Your task to perform on an android device: turn notification dots on Image 0: 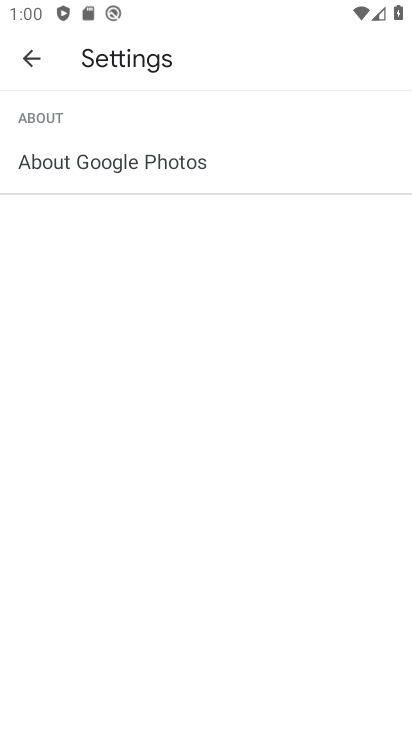
Step 0: press home button
Your task to perform on an android device: turn notification dots on Image 1: 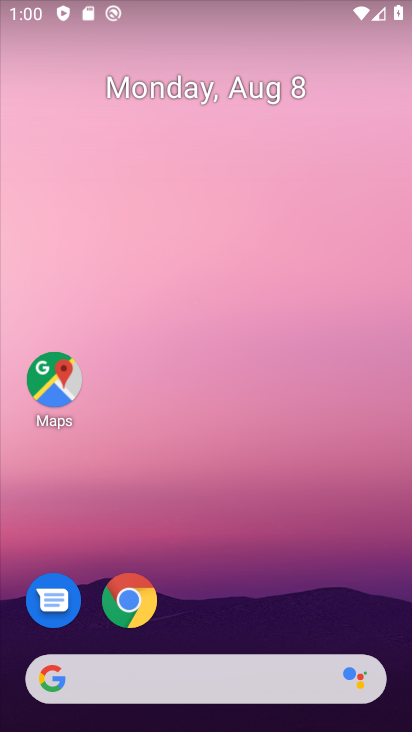
Step 1: click (275, 637)
Your task to perform on an android device: turn notification dots on Image 2: 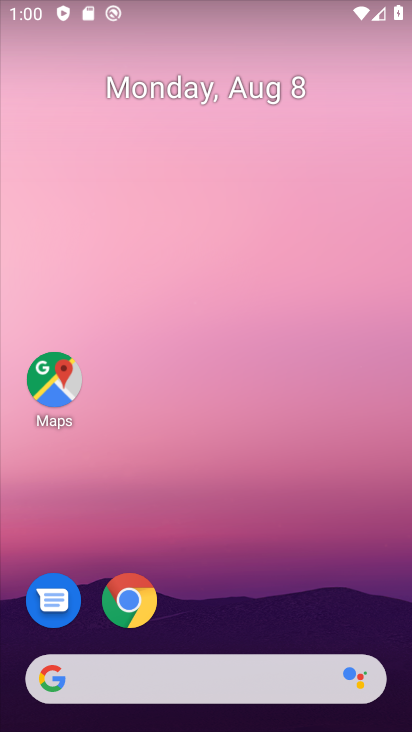
Step 2: drag from (319, 230) to (326, 73)
Your task to perform on an android device: turn notification dots on Image 3: 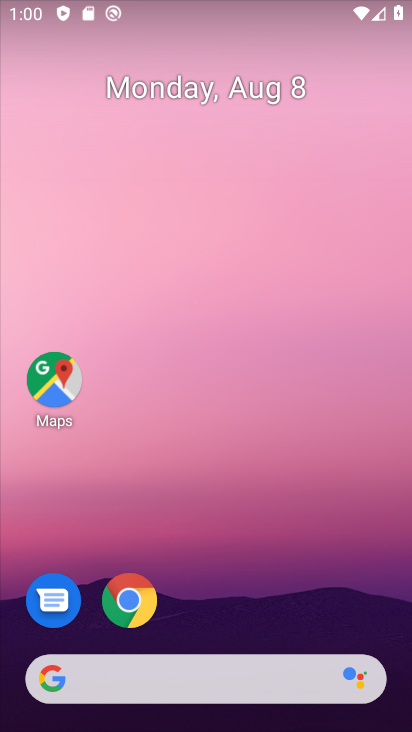
Step 3: drag from (264, 602) to (262, 26)
Your task to perform on an android device: turn notification dots on Image 4: 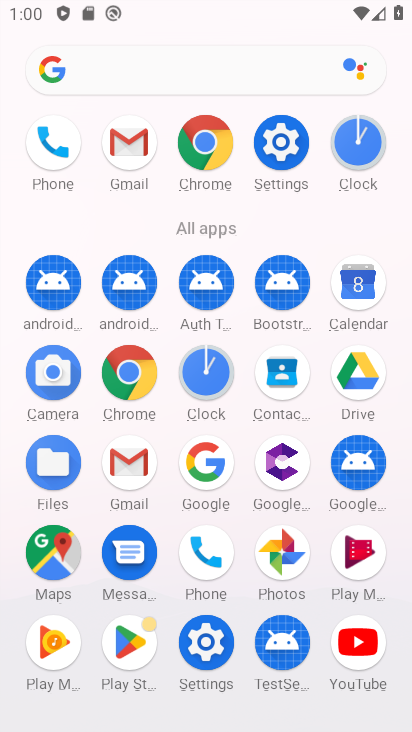
Step 4: click (284, 151)
Your task to perform on an android device: turn notification dots on Image 5: 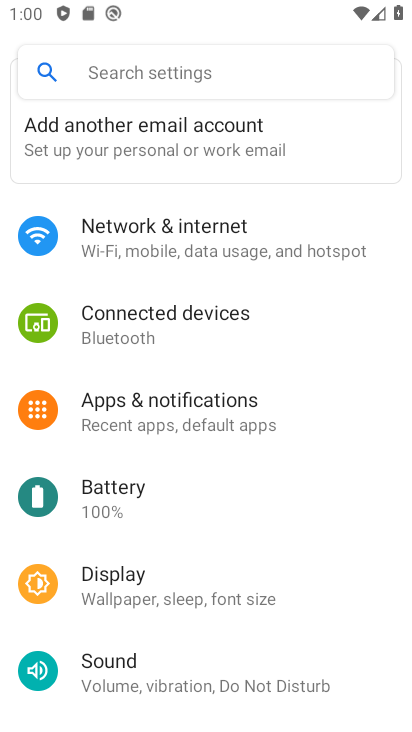
Step 5: drag from (315, 645) to (291, 540)
Your task to perform on an android device: turn notification dots on Image 6: 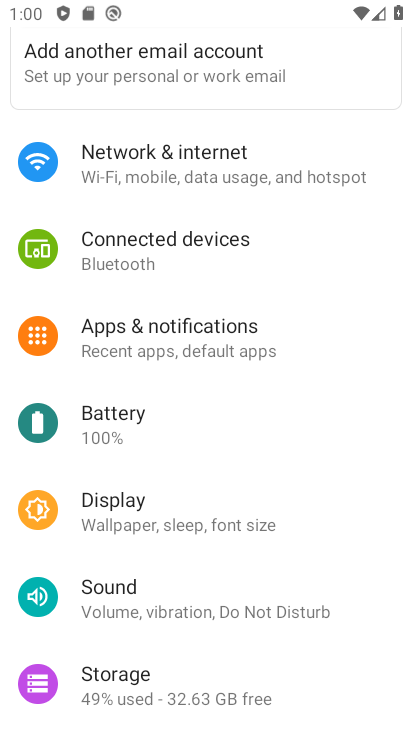
Step 6: click (221, 317)
Your task to perform on an android device: turn notification dots on Image 7: 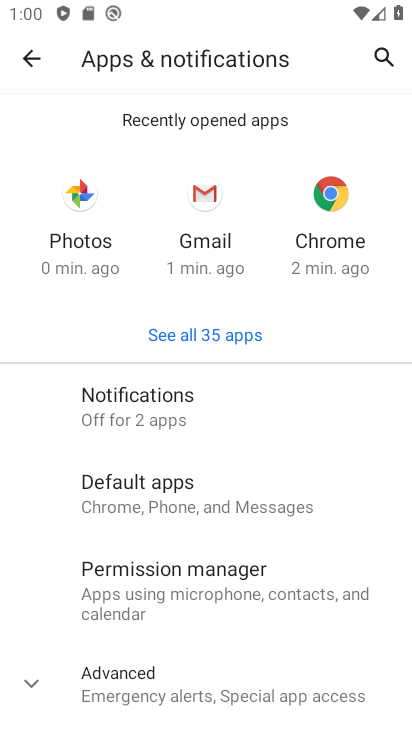
Step 7: click (161, 404)
Your task to perform on an android device: turn notification dots on Image 8: 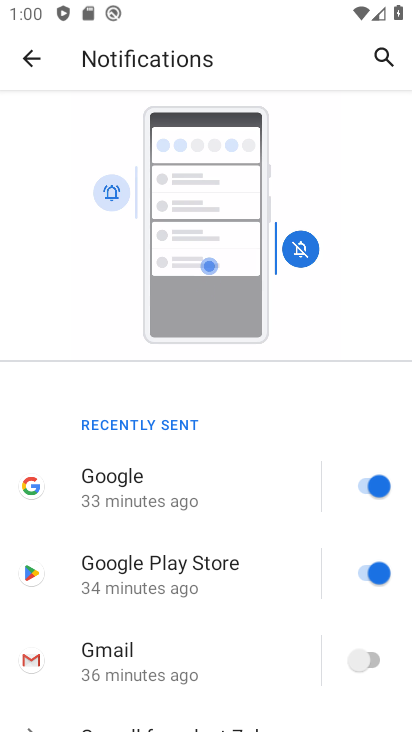
Step 8: drag from (253, 652) to (261, 190)
Your task to perform on an android device: turn notification dots on Image 9: 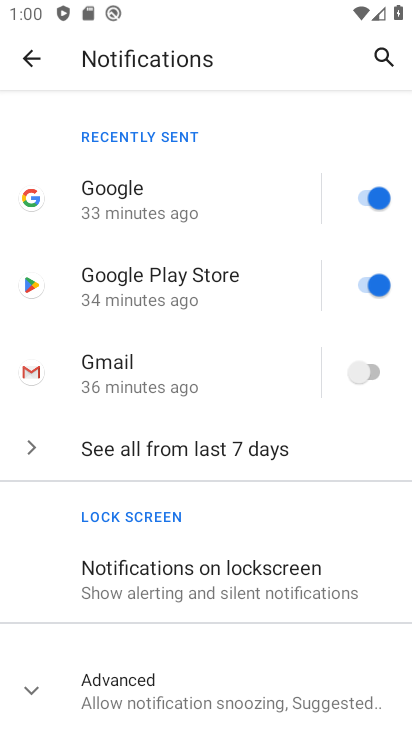
Step 9: click (216, 696)
Your task to perform on an android device: turn notification dots on Image 10: 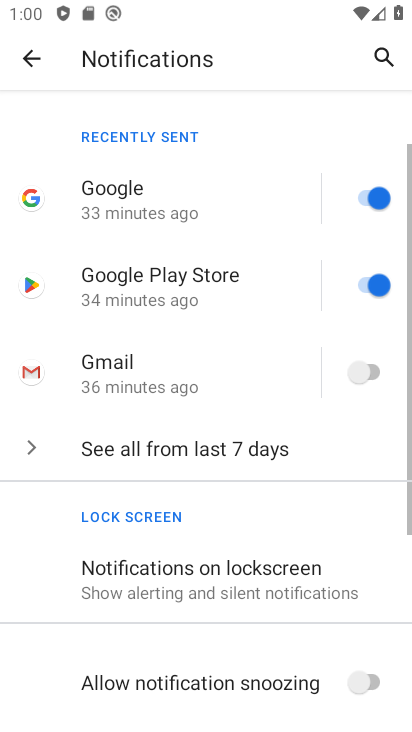
Step 10: task complete